Your task to perform on an android device: What's on my calendar tomorrow? Image 0: 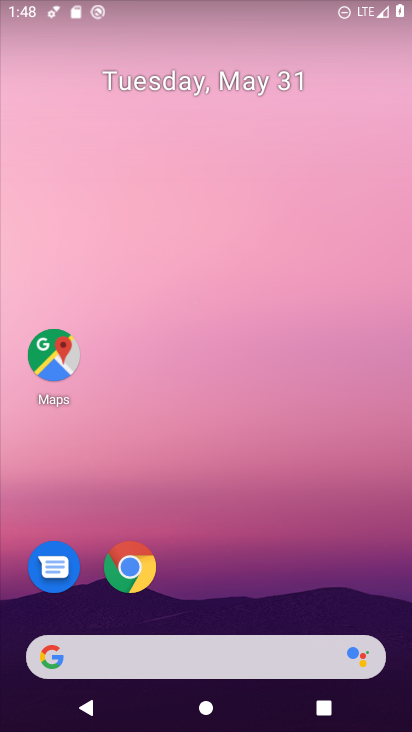
Step 0: drag from (215, 565) to (231, 196)
Your task to perform on an android device: What's on my calendar tomorrow? Image 1: 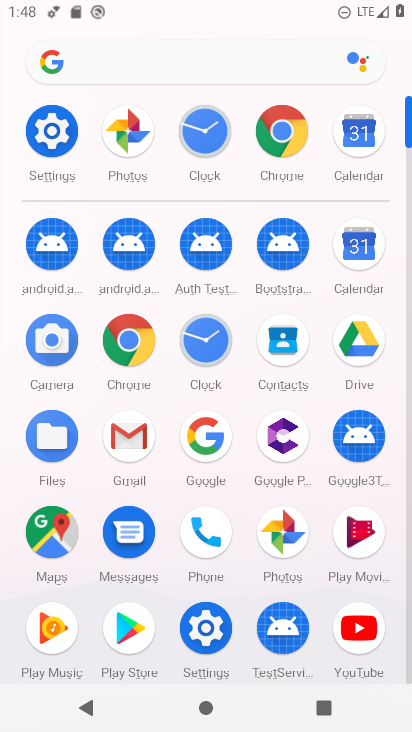
Step 1: click (351, 125)
Your task to perform on an android device: What's on my calendar tomorrow? Image 2: 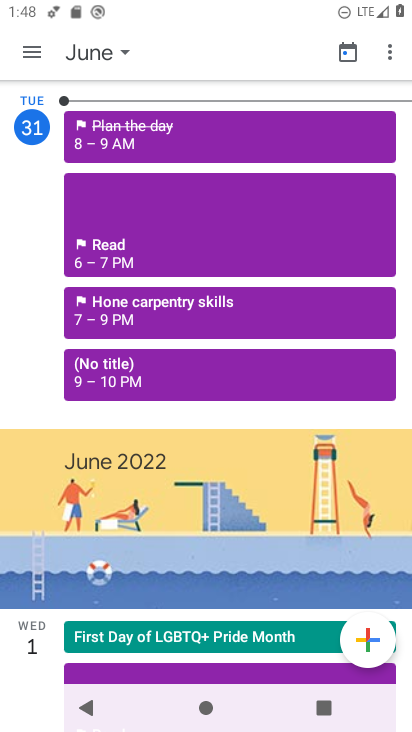
Step 2: click (118, 48)
Your task to perform on an android device: What's on my calendar tomorrow? Image 3: 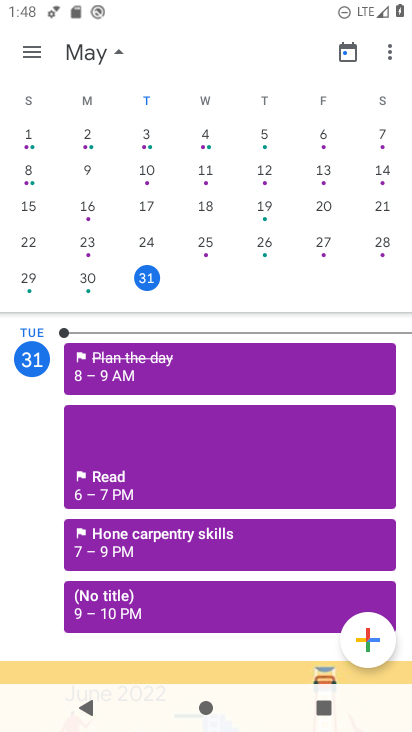
Step 3: drag from (307, 231) to (4, 214)
Your task to perform on an android device: What's on my calendar tomorrow? Image 4: 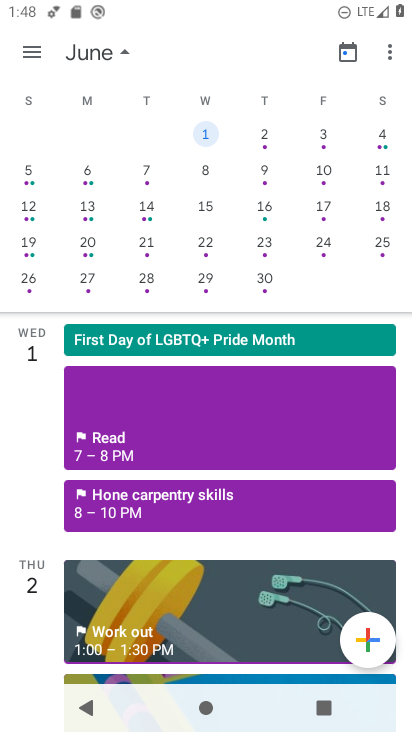
Step 4: click (211, 141)
Your task to perform on an android device: What's on my calendar tomorrow? Image 5: 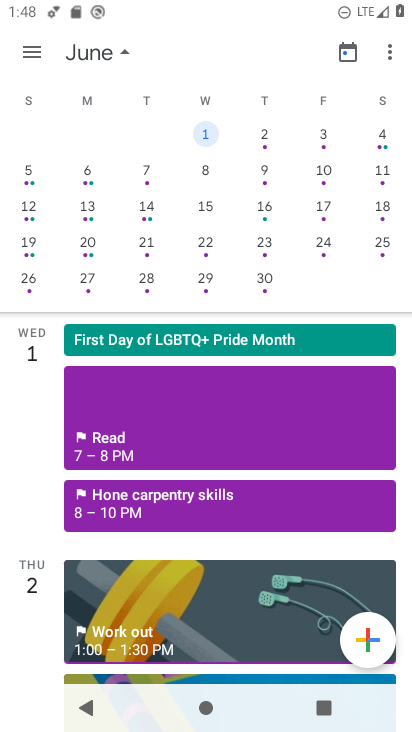
Step 5: task complete